Your task to perform on an android device: open a new tab in the chrome app Image 0: 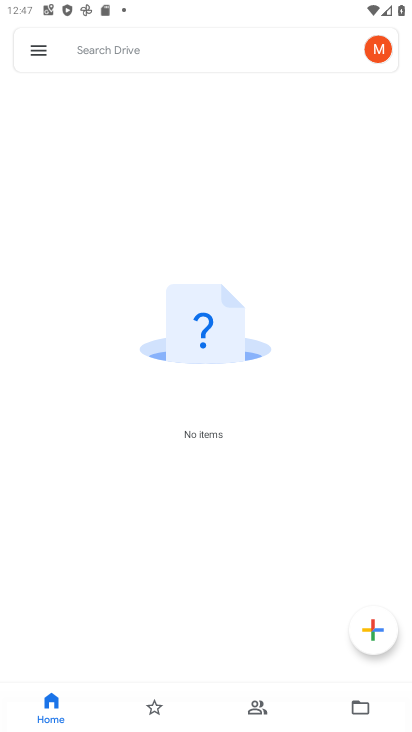
Step 0: press home button
Your task to perform on an android device: open a new tab in the chrome app Image 1: 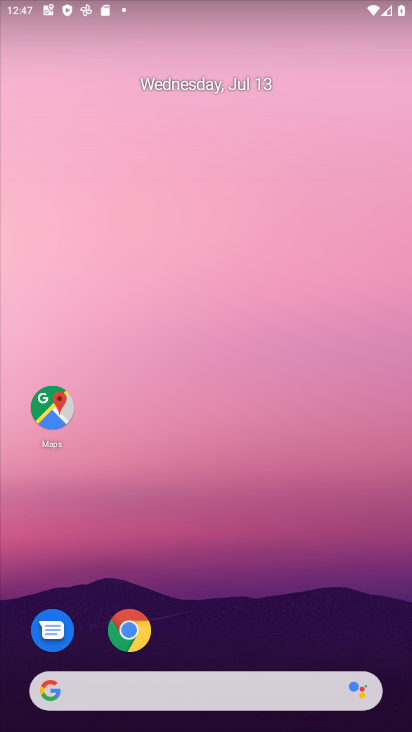
Step 1: drag from (390, 672) to (103, 21)
Your task to perform on an android device: open a new tab in the chrome app Image 2: 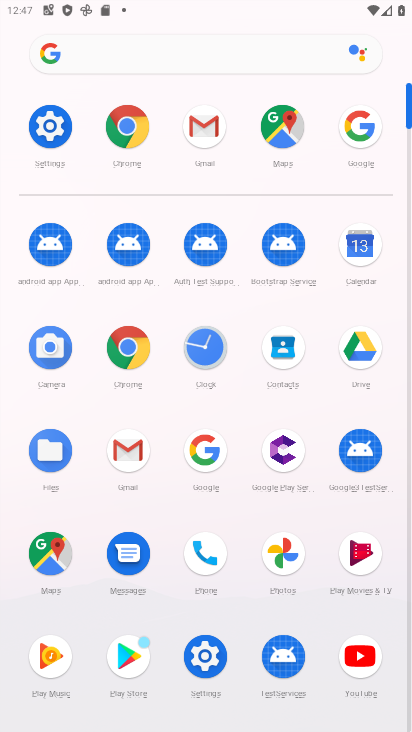
Step 2: click (138, 352)
Your task to perform on an android device: open a new tab in the chrome app Image 3: 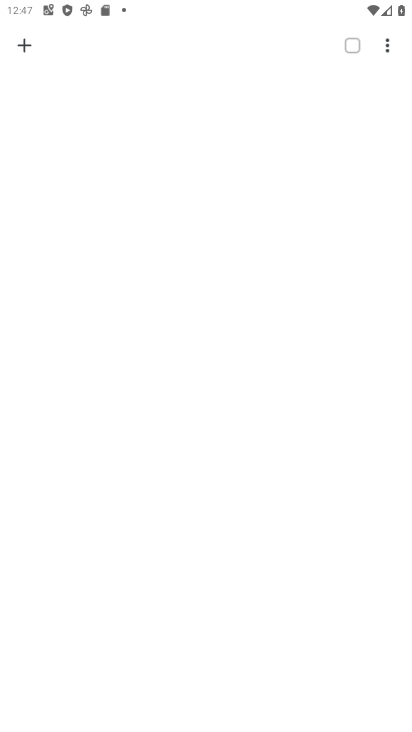
Step 3: click (18, 48)
Your task to perform on an android device: open a new tab in the chrome app Image 4: 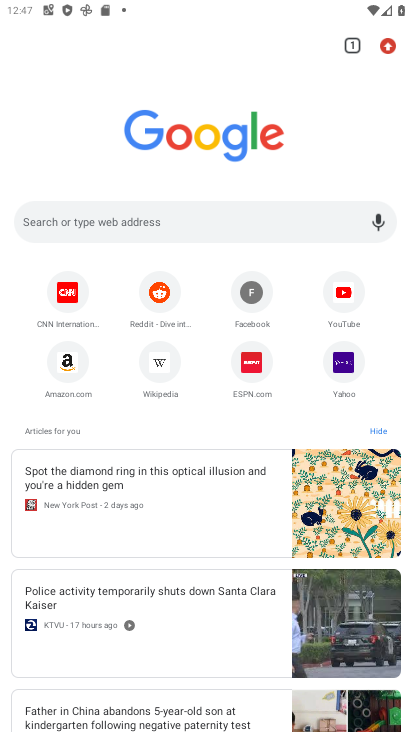
Step 4: task complete